Your task to perform on an android device: move a message to another label in the gmail app Image 0: 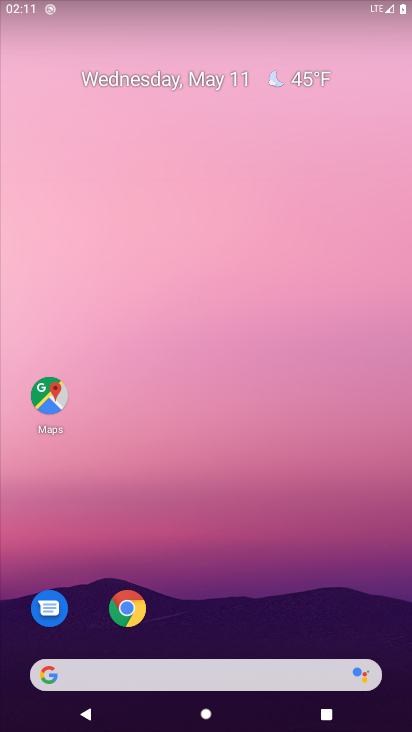
Step 0: press home button
Your task to perform on an android device: move a message to another label in the gmail app Image 1: 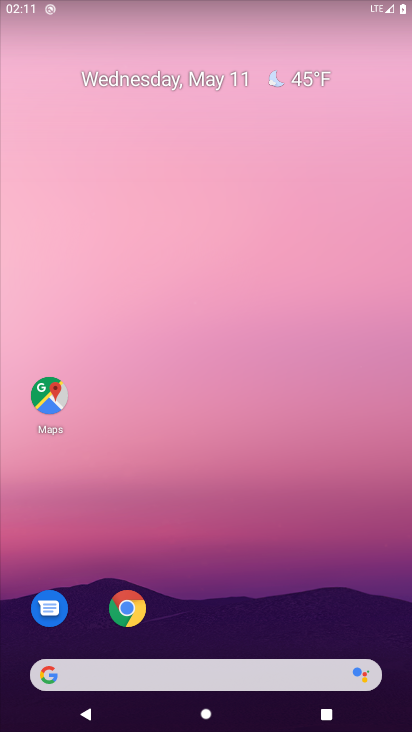
Step 1: drag from (257, 306) to (294, 84)
Your task to perform on an android device: move a message to another label in the gmail app Image 2: 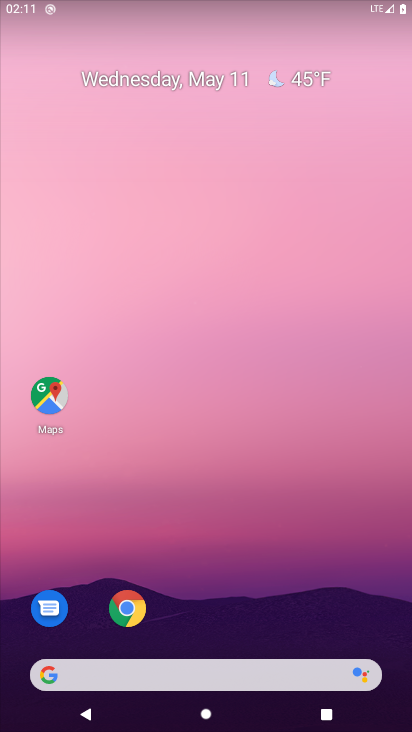
Step 2: drag from (208, 649) to (255, 72)
Your task to perform on an android device: move a message to another label in the gmail app Image 3: 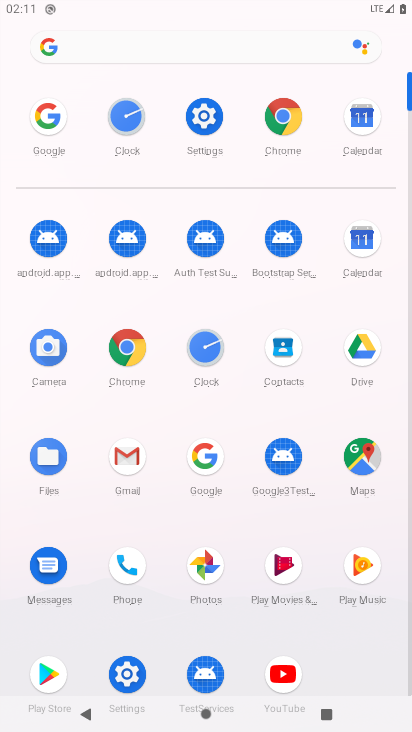
Step 3: click (120, 455)
Your task to perform on an android device: move a message to another label in the gmail app Image 4: 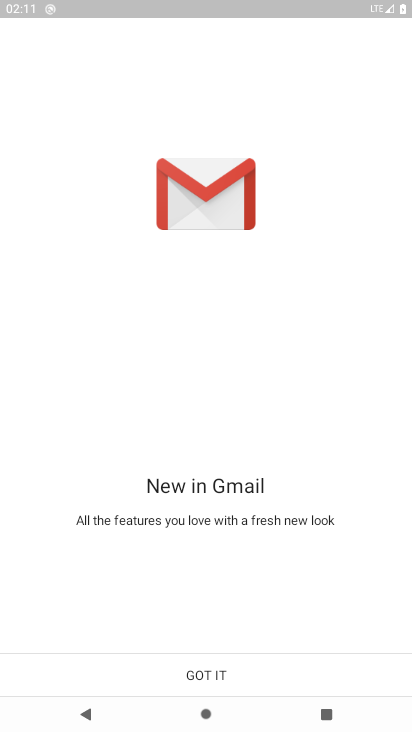
Step 4: click (212, 678)
Your task to perform on an android device: move a message to another label in the gmail app Image 5: 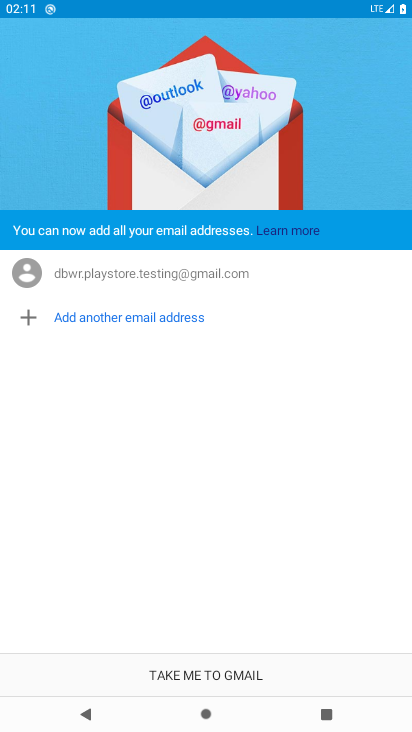
Step 5: click (212, 676)
Your task to perform on an android device: move a message to another label in the gmail app Image 6: 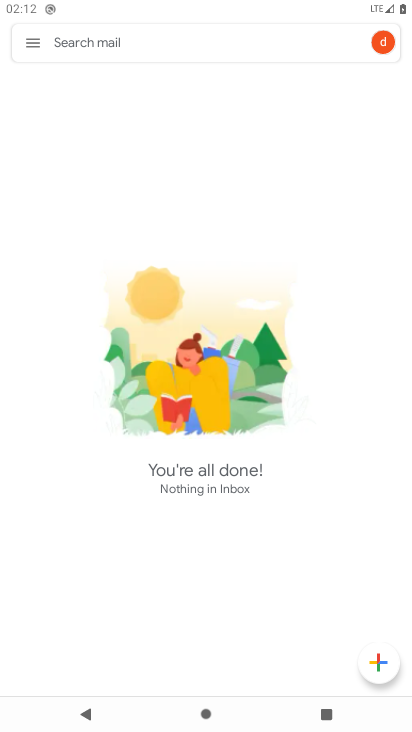
Step 6: task complete